Your task to perform on an android device: turn on showing notifications on the lock screen Image 0: 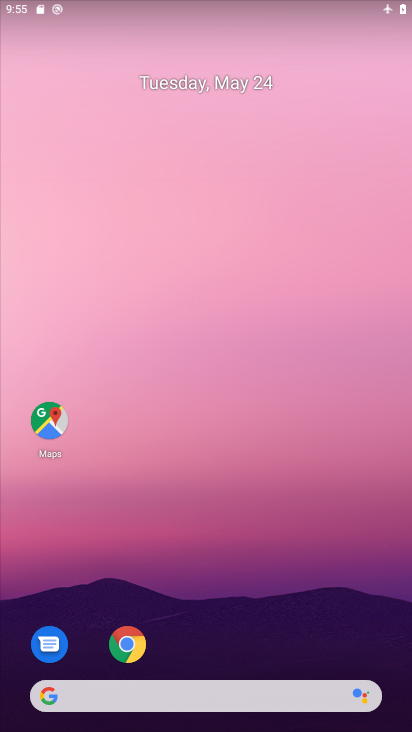
Step 0: drag from (274, 525) to (212, 115)
Your task to perform on an android device: turn on showing notifications on the lock screen Image 1: 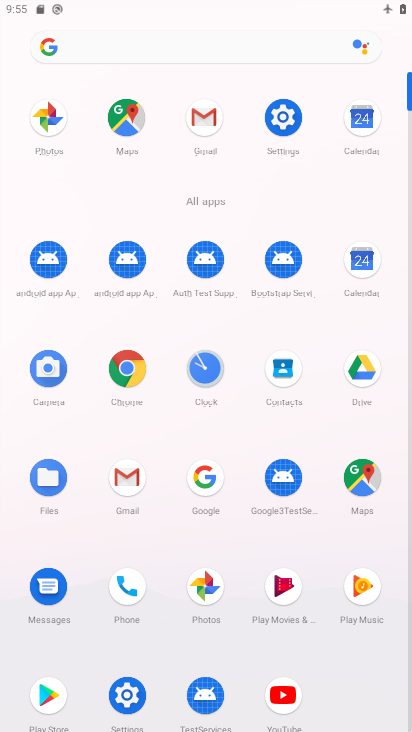
Step 1: click (282, 118)
Your task to perform on an android device: turn on showing notifications on the lock screen Image 2: 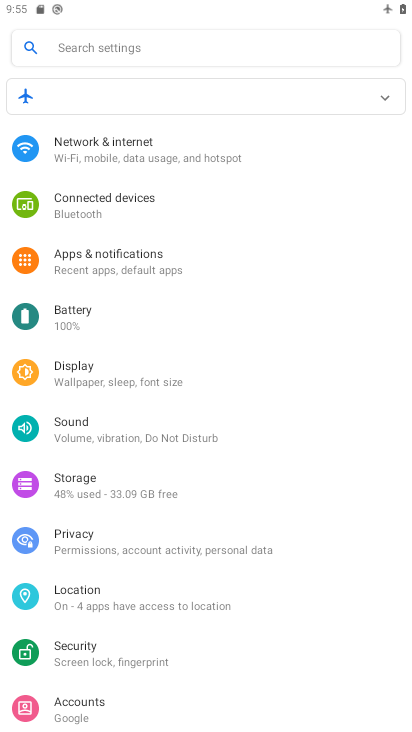
Step 2: click (122, 250)
Your task to perform on an android device: turn on showing notifications on the lock screen Image 3: 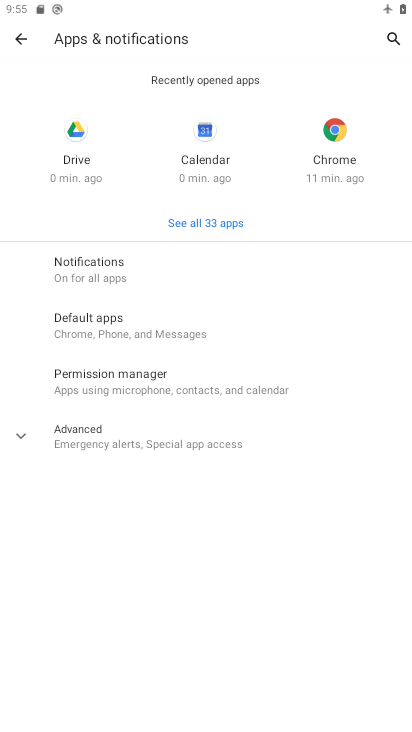
Step 3: click (99, 270)
Your task to perform on an android device: turn on showing notifications on the lock screen Image 4: 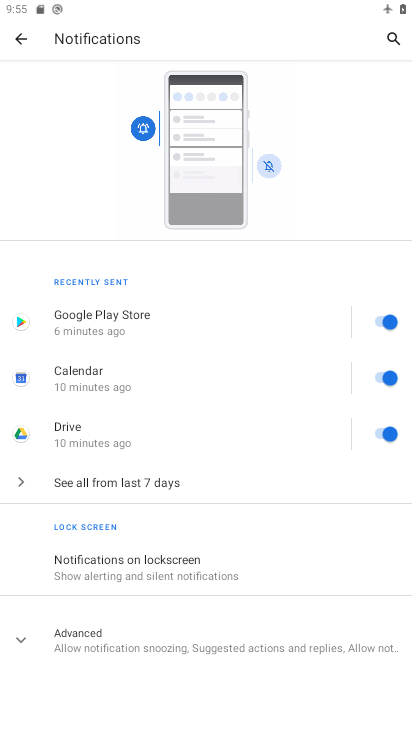
Step 4: click (143, 555)
Your task to perform on an android device: turn on showing notifications on the lock screen Image 5: 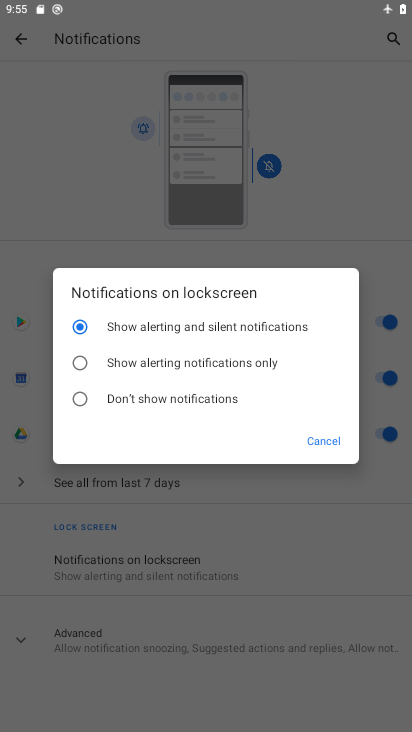
Step 5: task complete